Your task to perform on an android device: allow notifications from all sites in the chrome app Image 0: 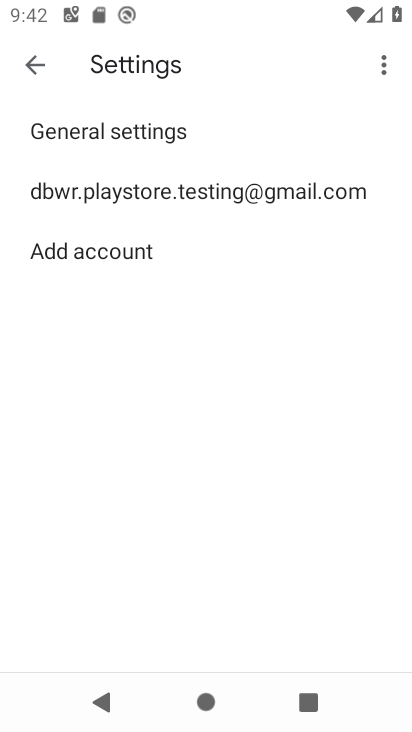
Step 0: press home button
Your task to perform on an android device: allow notifications from all sites in the chrome app Image 1: 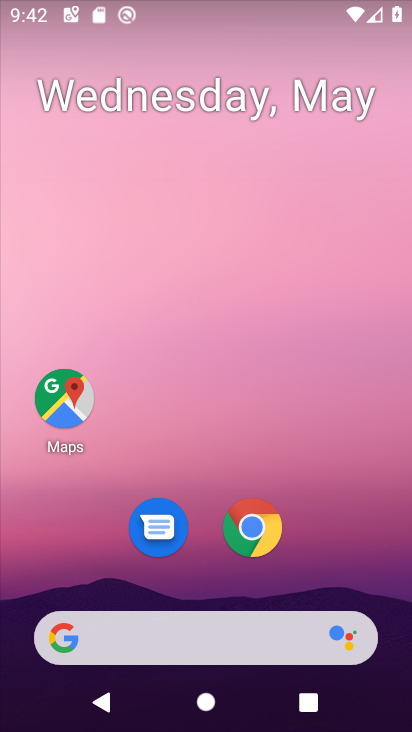
Step 1: click (253, 534)
Your task to perform on an android device: allow notifications from all sites in the chrome app Image 2: 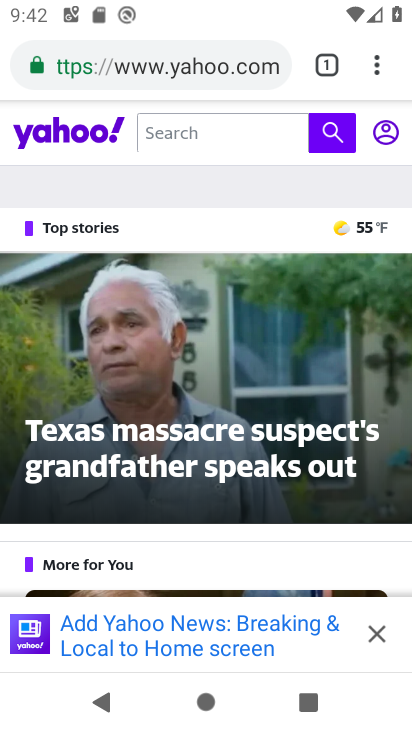
Step 2: click (365, 67)
Your task to perform on an android device: allow notifications from all sites in the chrome app Image 3: 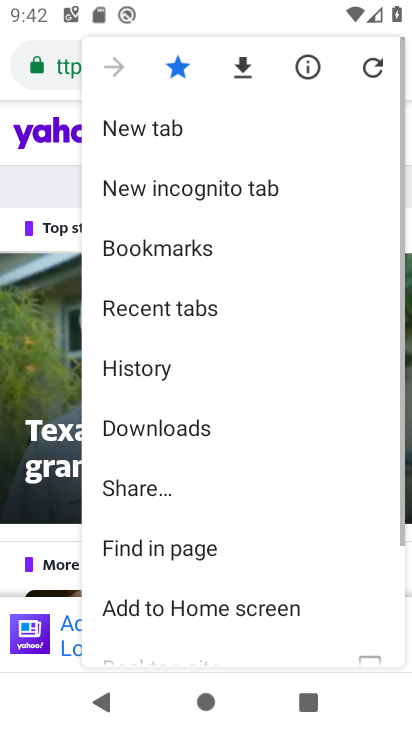
Step 3: drag from (293, 542) to (320, 113)
Your task to perform on an android device: allow notifications from all sites in the chrome app Image 4: 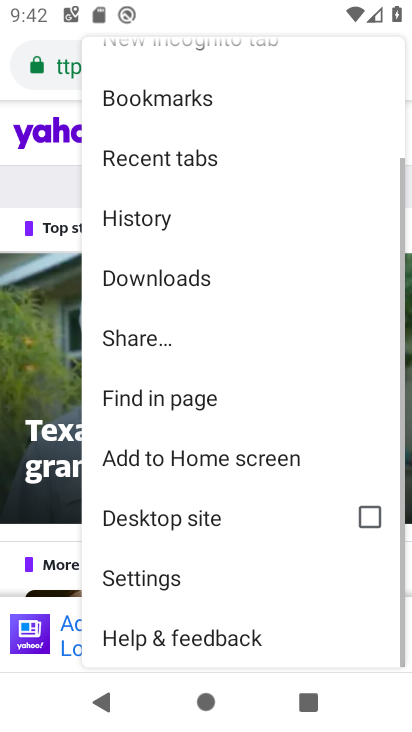
Step 4: click (167, 584)
Your task to perform on an android device: allow notifications from all sites in the chrome app Image 5: 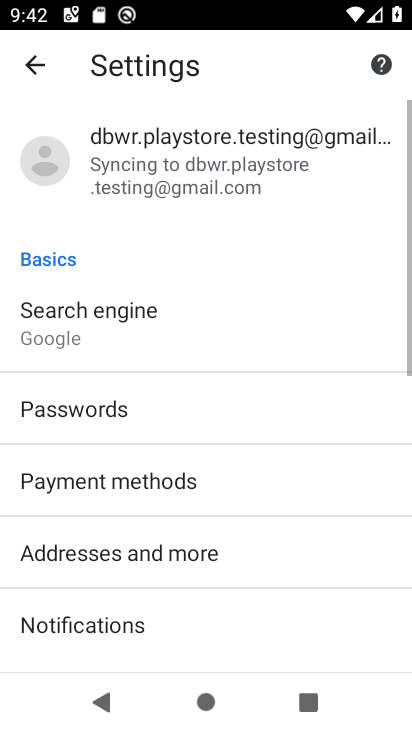
Step 5: drag from (206, 576) to (255, 97)
Your task to perform on an android device: allow notifications from all sites in the chrome app Image 6: 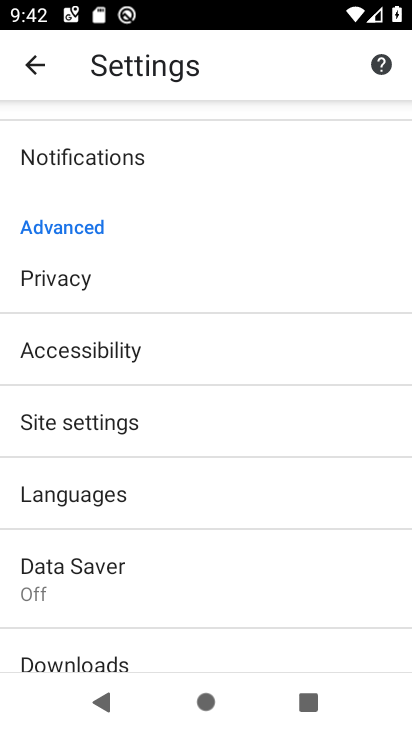
Step 6: click (64, 425)
Your task to perform on an android device: allow notifications from all sites in the chrome app Image 7: 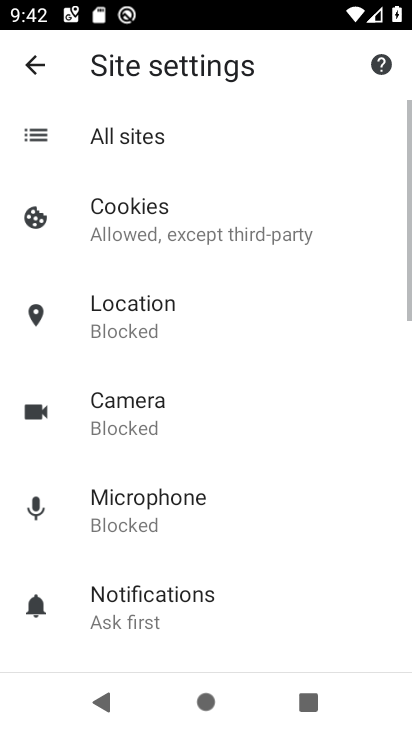
Step 7: click (176, 602)
Your task to perform on an android device: allow notifications from all sites in the chrome app Image 8: 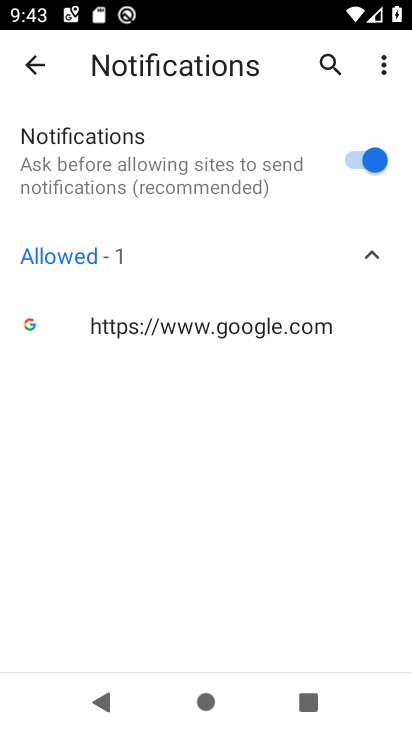
Step 8: task complete